Your task to perform on an android device: open chrome and create a bookmark for the current page Image 0: 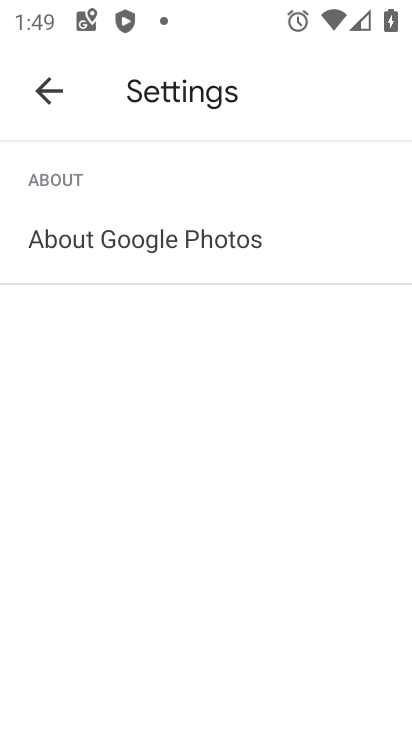
Step 0: press home button
Your task to perform on an android device: open chrome and create a bookmark for the current page Image 1: 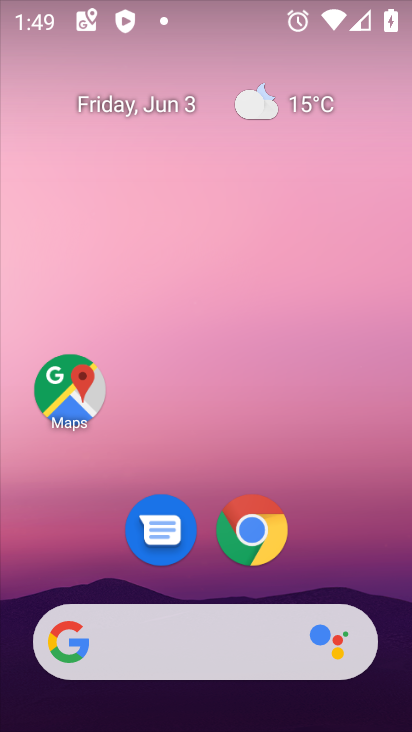
Step 1: click (262, 531)
Your task to perform on an android device: open chrome and create a bookmark for the current page Image 2: 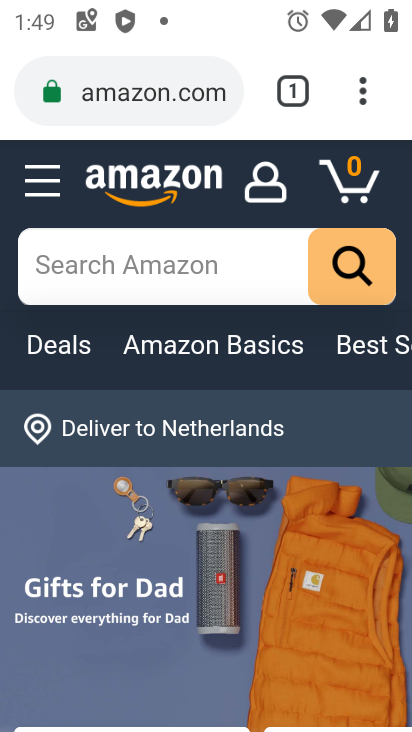
Step 2: task complete